Your task to perform on an android device: Open battery settings Image 0: 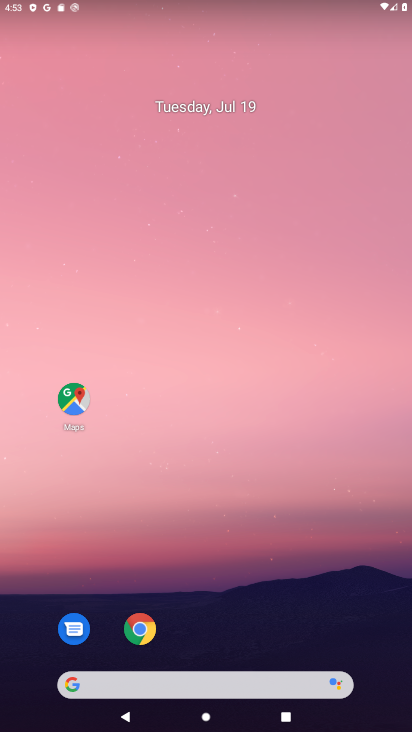
Step 0: press home button
Your task to perform on an android device: Open battery settings Image 1: 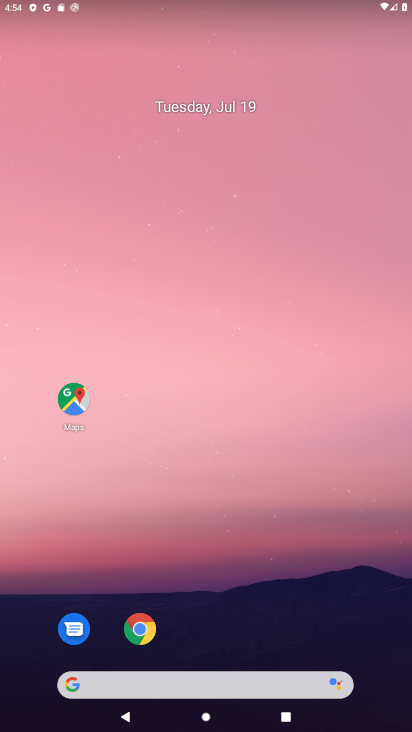
Step 1: drag from (229, 601) to (224, 68)
Your task to perform on an android device: Open battery settings Image 2: 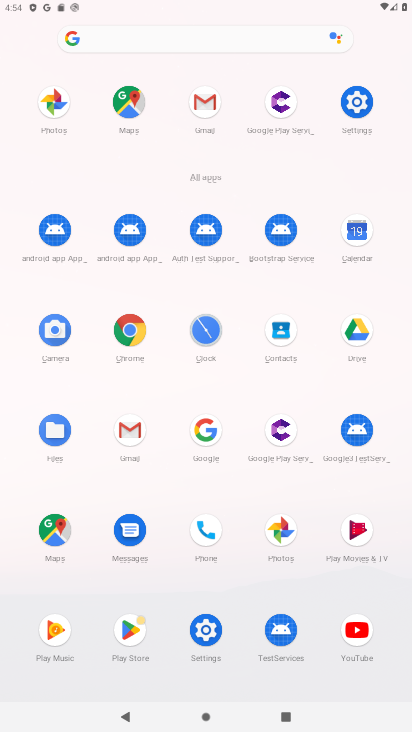
Step 2: click (359, 107)
Your task to perform on an android device: Open battery settings Image 3: 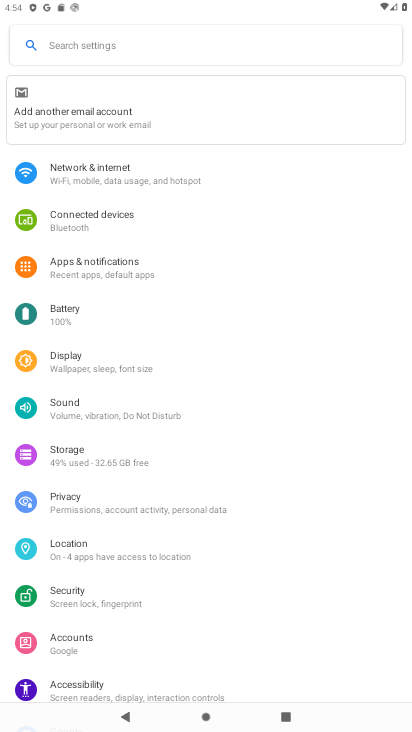
Step 3: click (98, 321)
Your task to perform on an android device: Open battery settings Image 4: 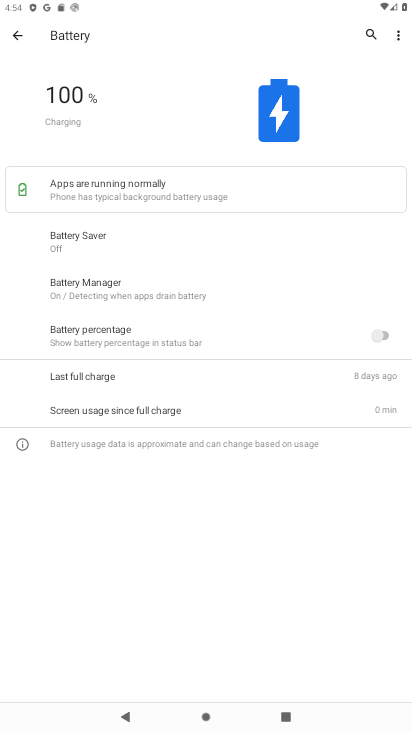
Step 4: task complete